Your task to perform on an android device: open app "Google Sheets" (install if not already installed) Image 0: 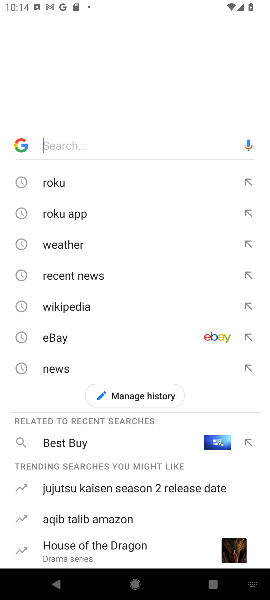
Step 0: press home button
Your task to perform on an android device: open app "Google Sheets" (install if not already installed) Image 1: 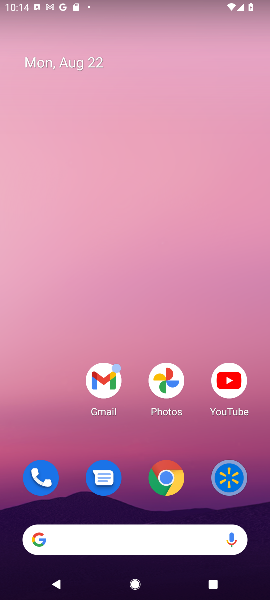
Step 1: drag from (135, 512) to (60, 21)
Your task to perform on an android device: open app "Google Sheets" (install if not already installed) Image 2: 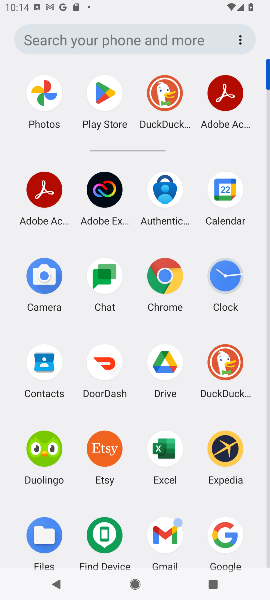
Step 2: click (111, 129)
Your task to perform on an android device: open app "Google Sheets" (install if not already installed) Image 3: 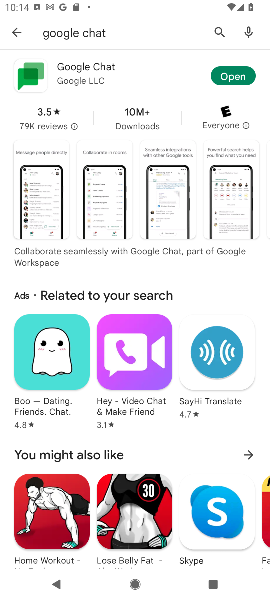
Step 3: click (211, 33)
Your task to perform on an android device: open app "Google Sheets" (install if not already installed) Image 4: 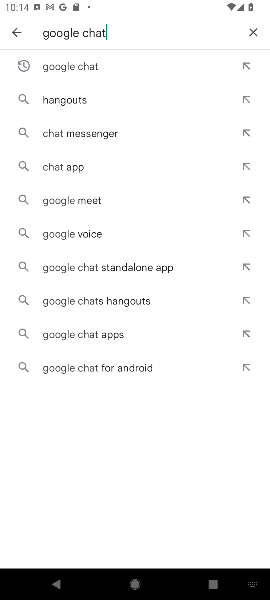
Step 4: click (246, 34)
Your task to perform on an android device: open app "Google Sheets" (install if not already installed) Image 5: 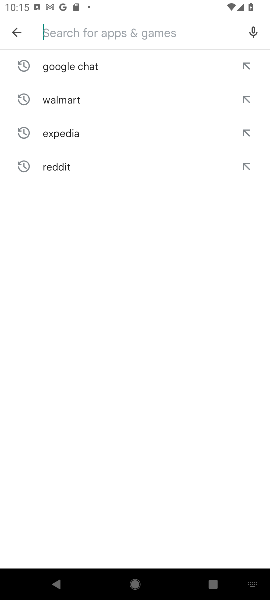
Step 5: type "google sheet"
Your task to perform on an android device: open app "Google Sheets" (install if not already installed) Image 6: 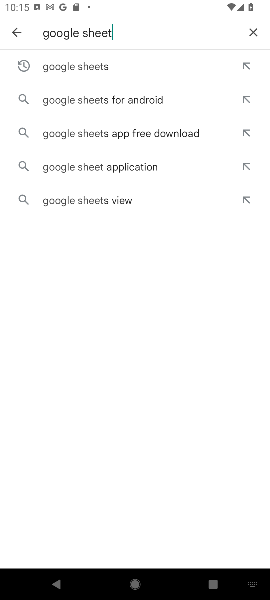
Step 6: click (98, 60)
Your task to perform on an android device: open app "Google Sheets" (install if not already installed) Image 7: 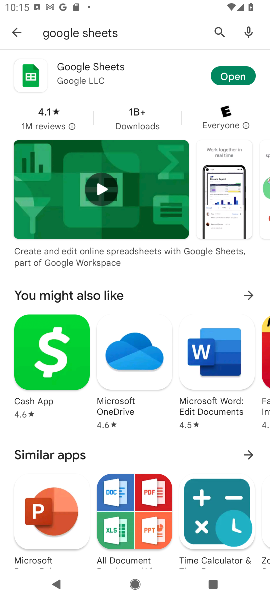
Step 7: click (227, 72)
Your task to perform on an android device: open app "Google Sheets" (install if not already installed) Image 8: 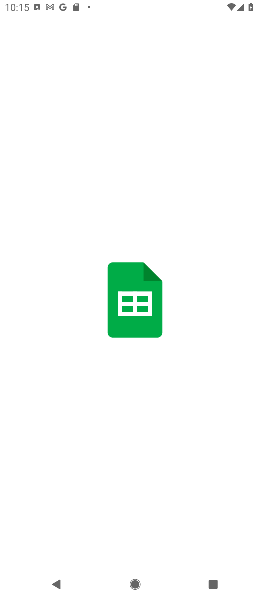
Step 8: task complete